Your task to perform on an android device: check battery use Image 0: 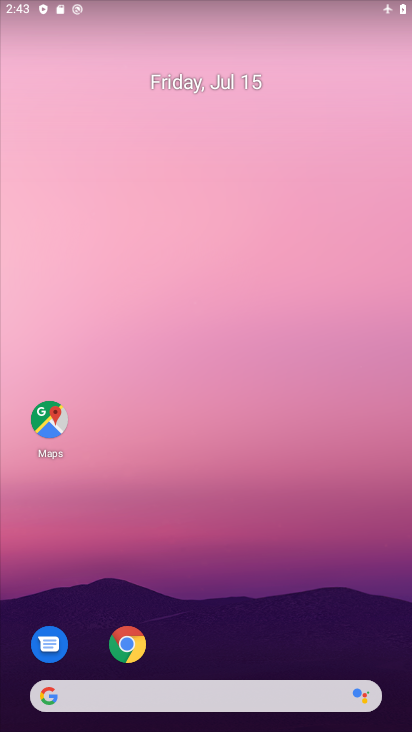
Step 0: drag from (292, 708) to (234, 12)
Your task to perform on an android device: check battery use Image 1: 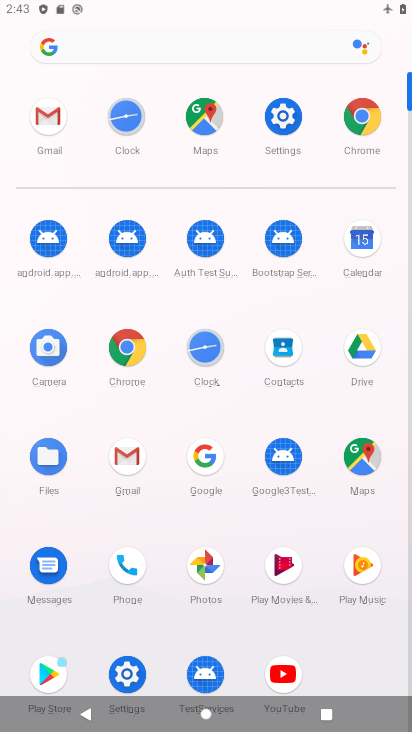
Step 1: click (290, 121)
Your task to perform on an android device: check battery use Image 2: 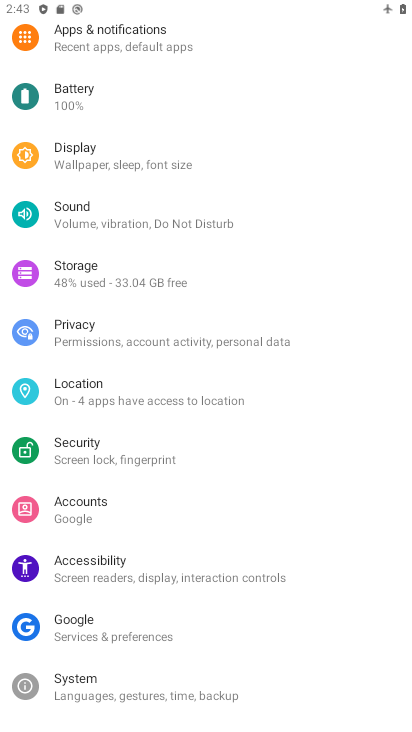
Step 2: click (80, 89)
Your task to perform on an android device: check battery use Image 3: 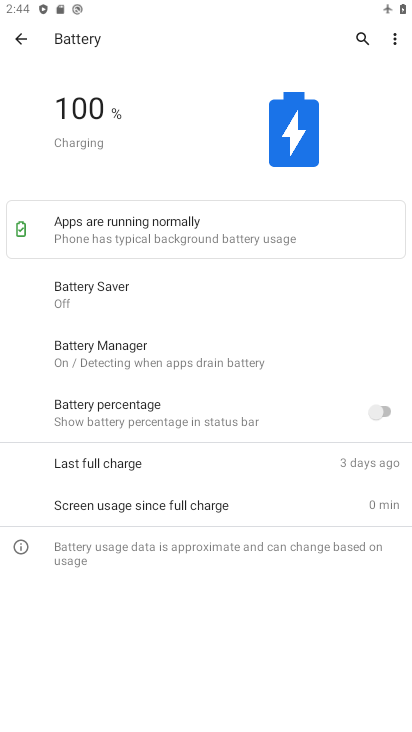
Step 3: task complete